Your task to perform on an android device: Go to notification settings Image 0: 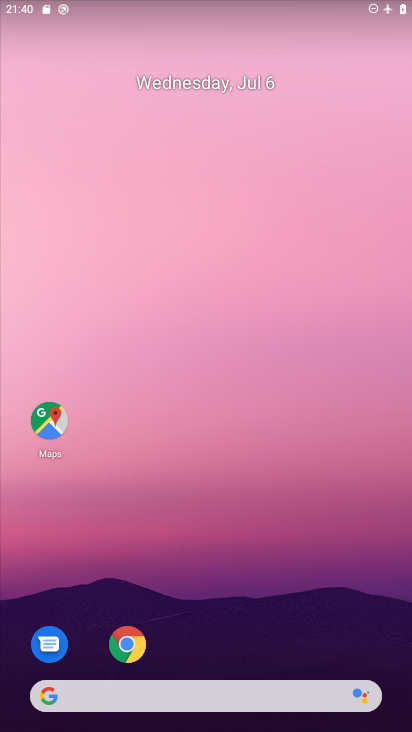
Step 0: drag from (202, 648) to (210, 173)
Your task to perform on an android device: Go to notification settings Image 1: 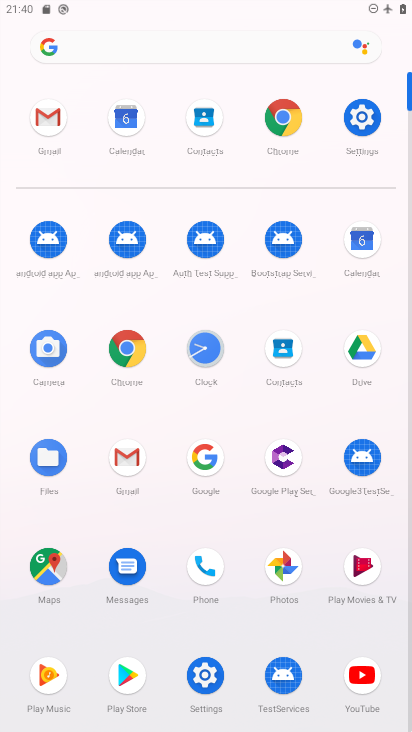
Step 1: click (375, 120)
Your task to perform on an android device: Go to notification settings Image 2: 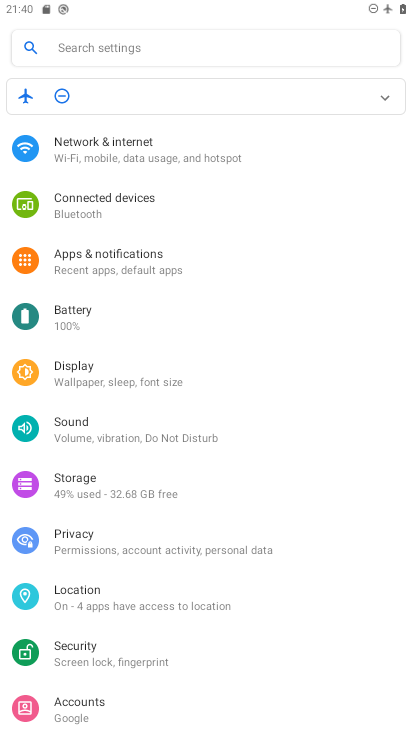
Step 2: click (167, 265)
Your task to perform on an android device: Go to notification settings Image 3: 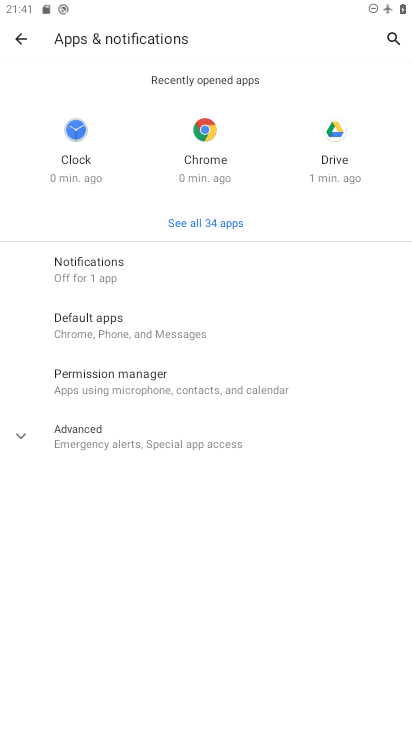
Step 3: click (159, 285)
Your task to perform on an android device: Go to notification settings Image 4: 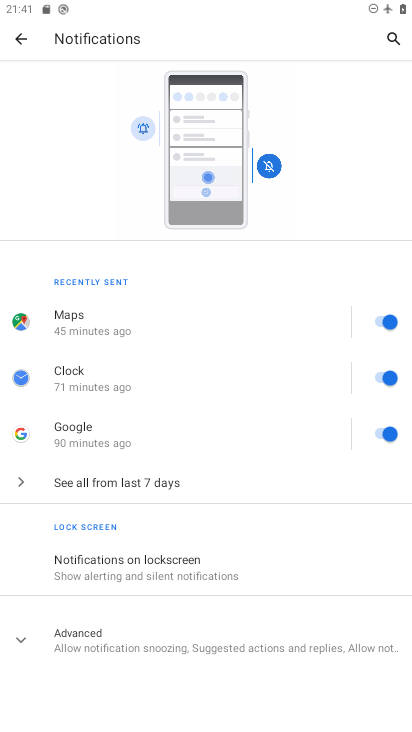
Step 4: task complete